Your task to perform on an android device: change notifications settings Image 0: 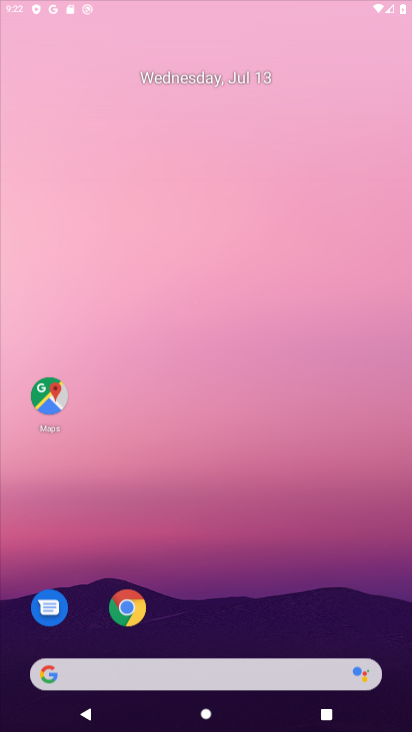
Step 0: press home button
Your task to perform on an android device: change notifications settings Image 1: 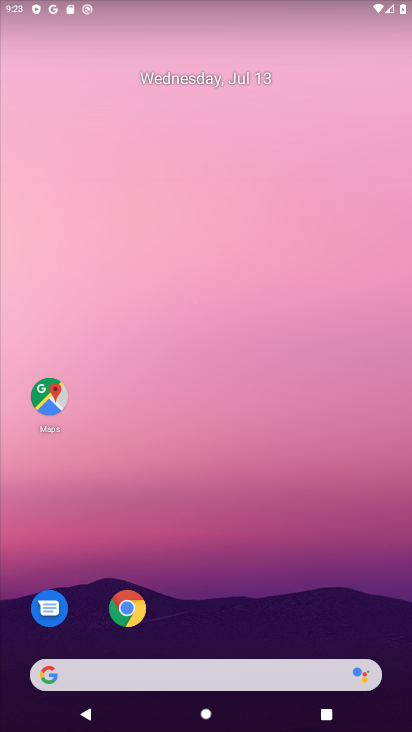
Step 1: drag from (285, 663) to (263, 156)
Your task to perform on an android device: change notifications settings Image 2: 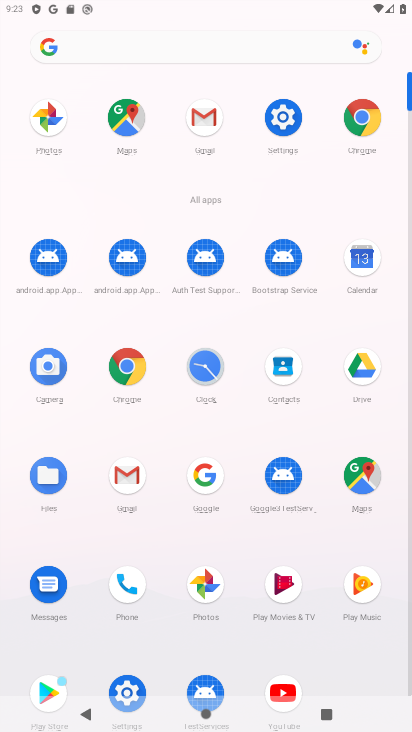
Step 2: click (280, 112)
Your task to perform on an android device: change notifications settings Image 3: 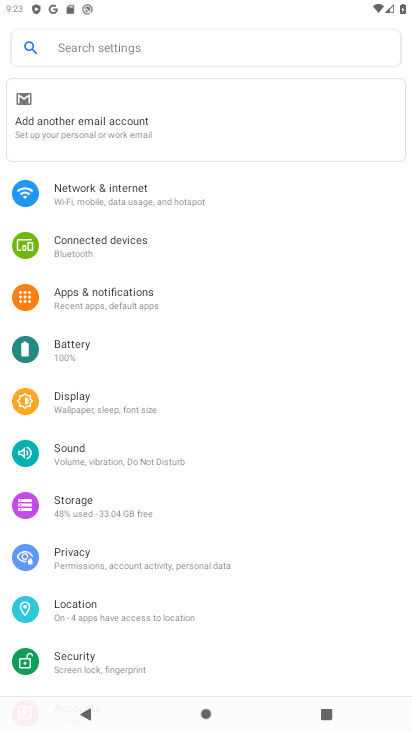
Step 3: click (132, 303)
Your task to perform on an android device: change notifications settings Image 4: 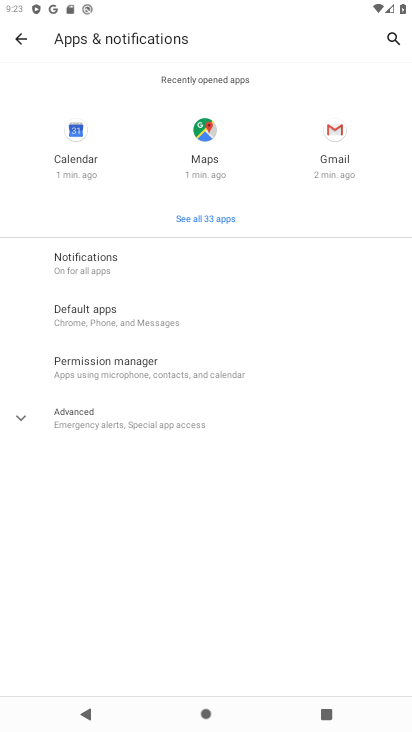
Step 4: click (116, 261)
Your task to perform on an android device: change notifications settings Image 5: 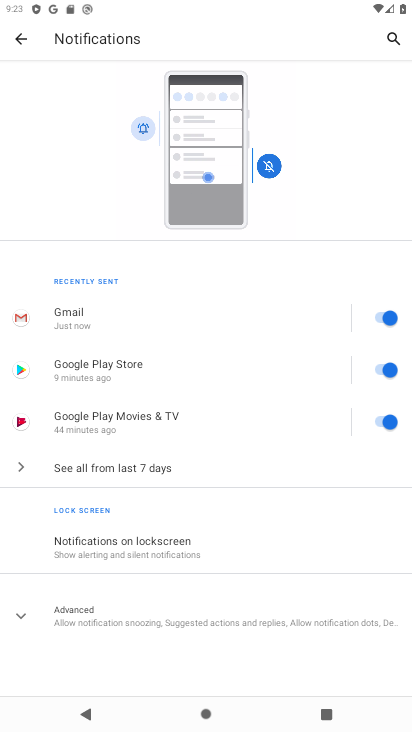
Step 5: click (390, 316)
Your task to perform on an android device: change notifications settings Image 6: 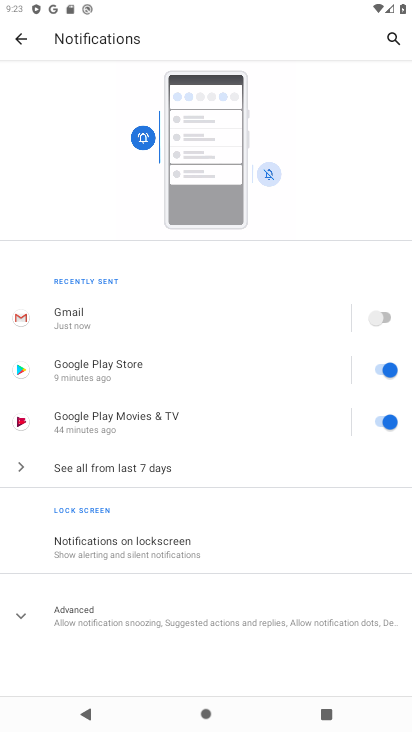
Step 6: task complete